Your task to perform on an android device: What's on my calendar tomorrow? Image 0: 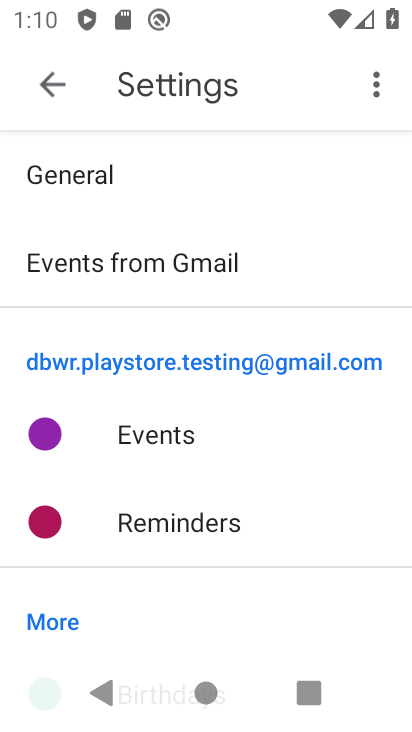
Step 0: press home button
Your task to perform on an android device: What's on my calendar tomorrow? Image 1: 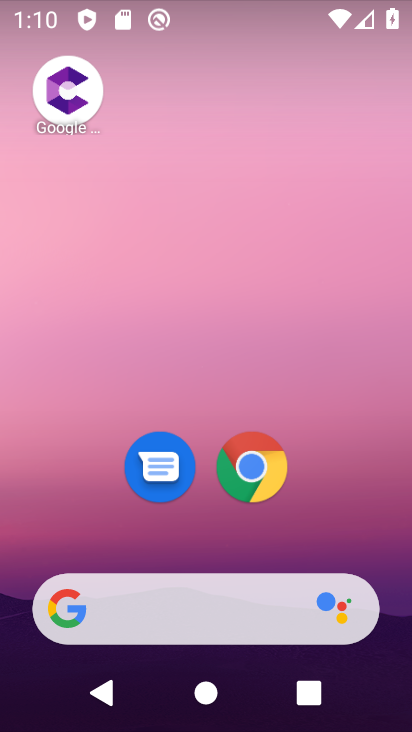
Step 1: drag from (400, 598) to (284, 83)
Your task to perform on an android device: What's on my calendar tomorrow? Image 2: 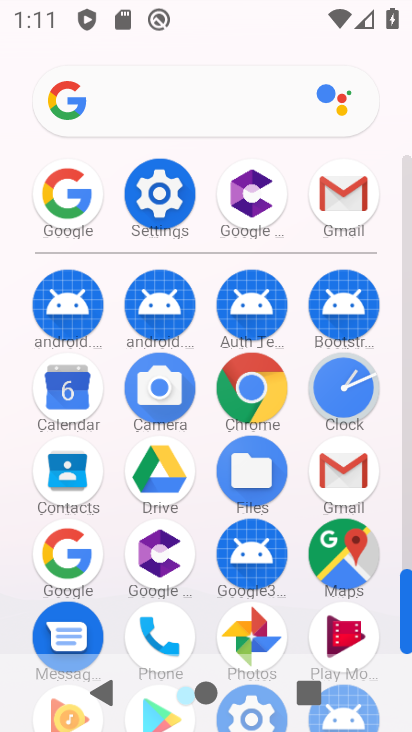
Step 2: click (60, 408)
Your task to perform on an android device: What's on my calendar tomorrow? Image 3: 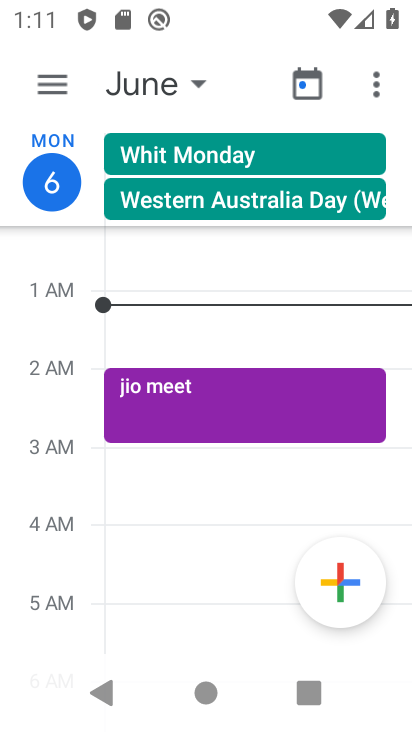
Step 3: click (126, 96)
Your task to perform on an android device: What's on my calendar tomorrow? Image 4: 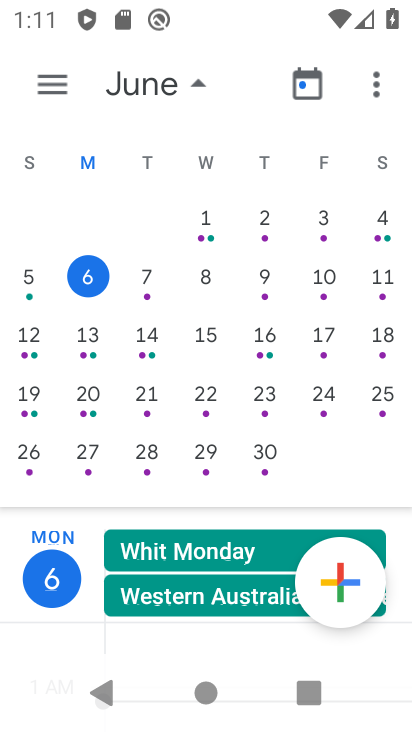
Step 4: click (137, 279)
Your task to perform on an android device: What's on my calendar tomorrow? Image 5: 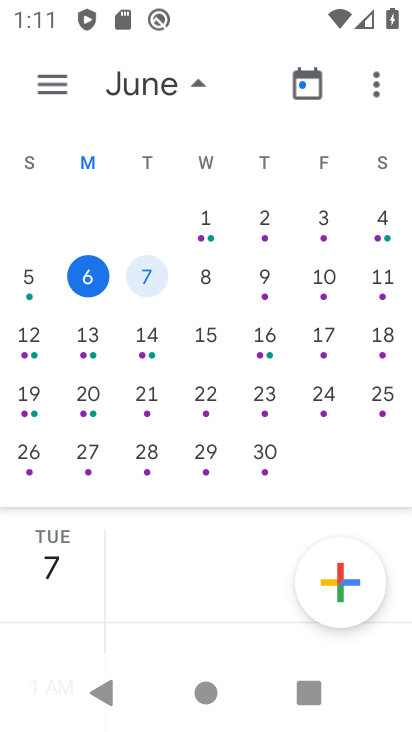
Step 5: click (154, 269)
Your task to perform on an android device: What's on my calendar tomorrow? Image 6: 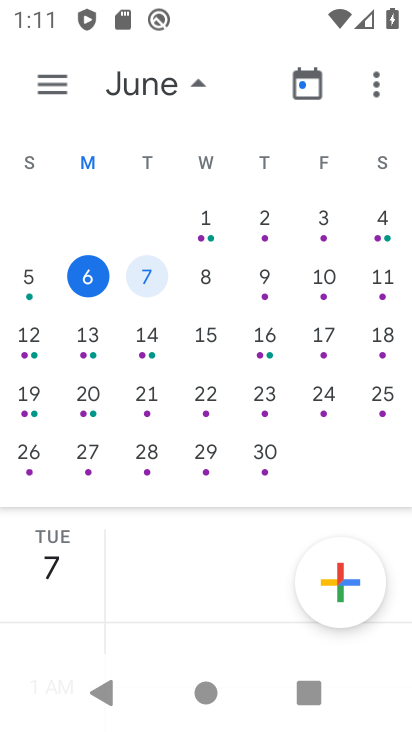
Step 6: drag from (202, 565) to (194, 83)
Your task to perform on an android device: What's on my calendar tomorrow? Image 7: 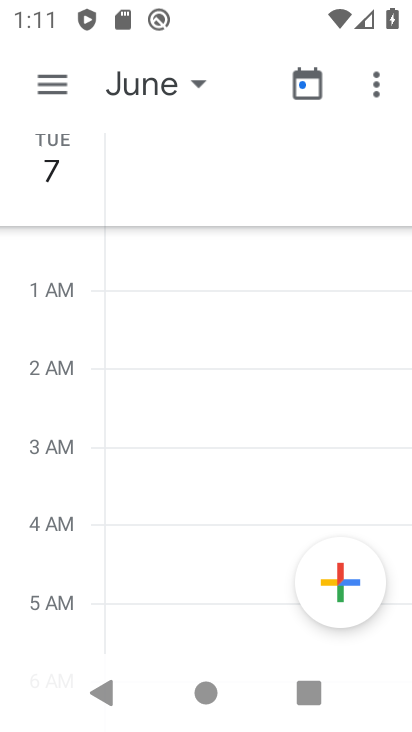
Step 7: drag from (168, 533) to (182, 156)
Your task to perform on an android device: What's on my calendar tomorrow? Image 8: 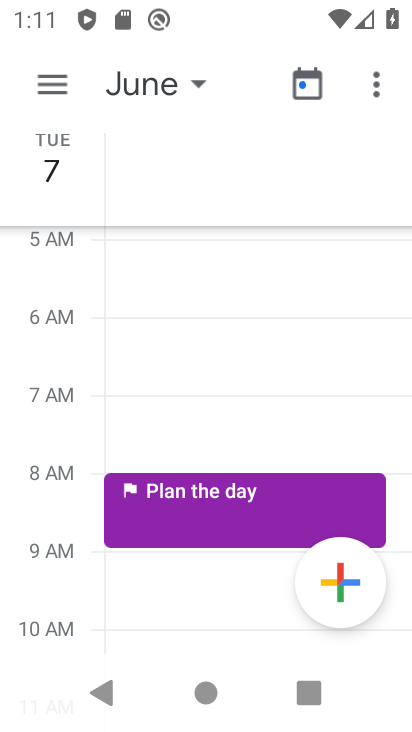
Step 8: click (211, 503)
Your task to perform on an android device: What's on my calendar tomorrow? Image 9: 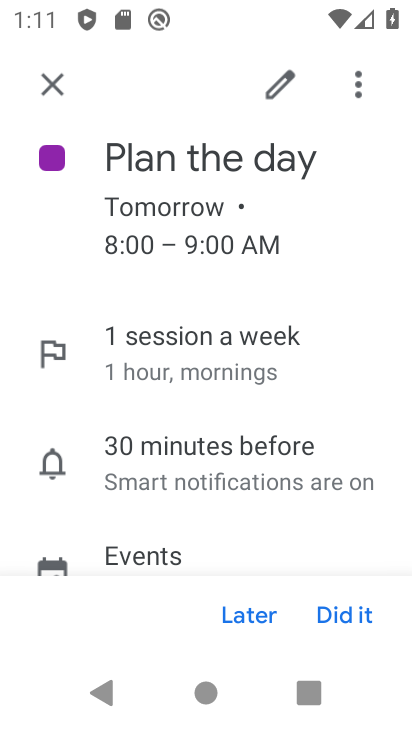
Step 9: task complete